Your task to perform on an android device: When is my next appointment? Image 0: 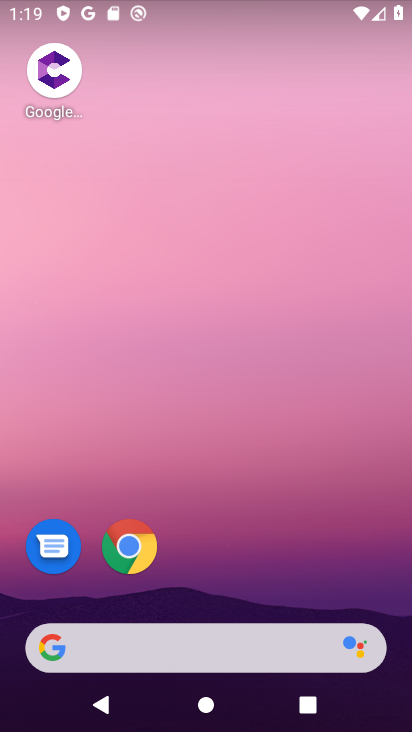
Step 0: drag from (305, 645) to (333, 13)
Your task to perform on an android device: When is my next appointment? Image 1: 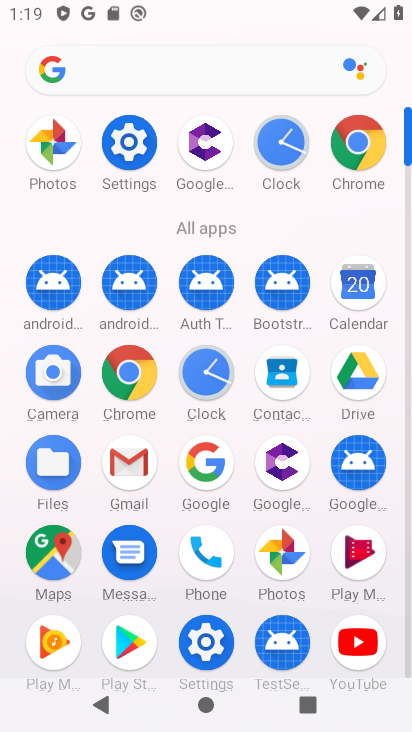
Step 1: click (373, 288)
Your task to perform on an android device: When is my next appointment? Image 2: 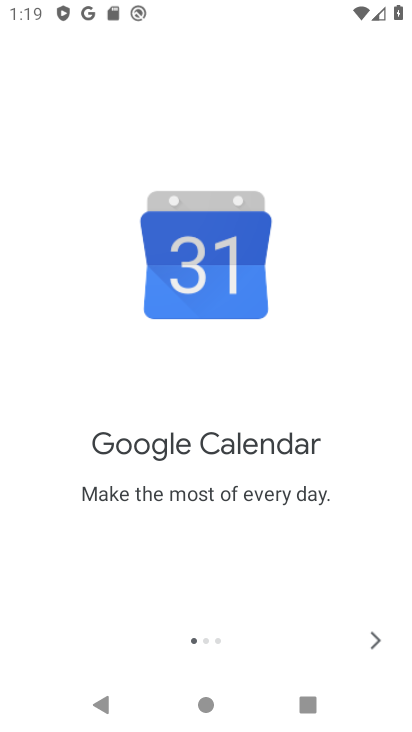
Step 2: click (367, 636)
Your task to perform on an android device: When is my next appointment? Image 3: 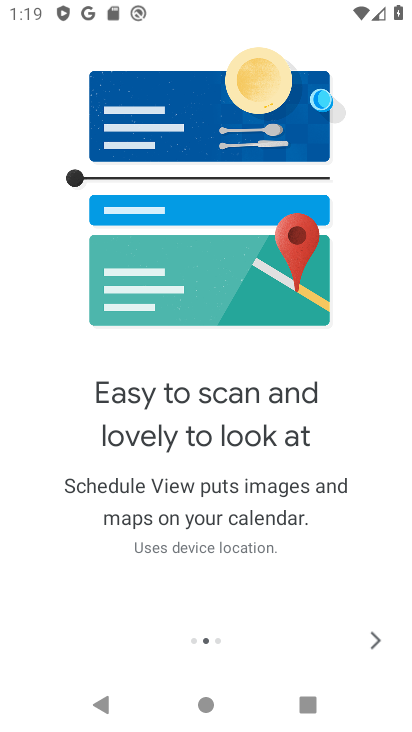
Step 3: click (367, 636)
Your task to perform on an android device: When is my next appointment? Image 4: 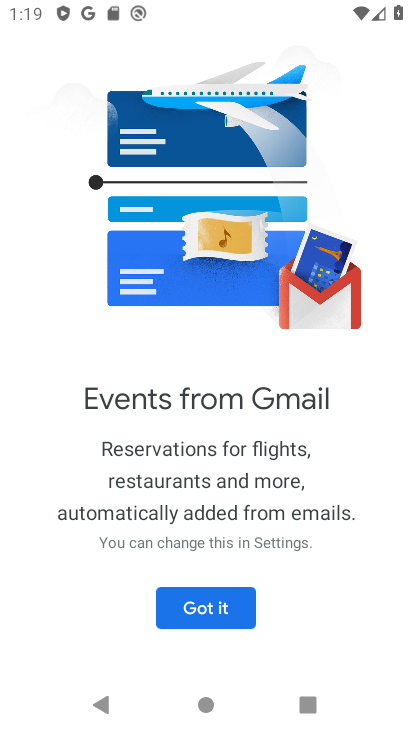
Step 4: click (193, 591)
Your task to perform on an android device: When is my next appointment? Image 5: 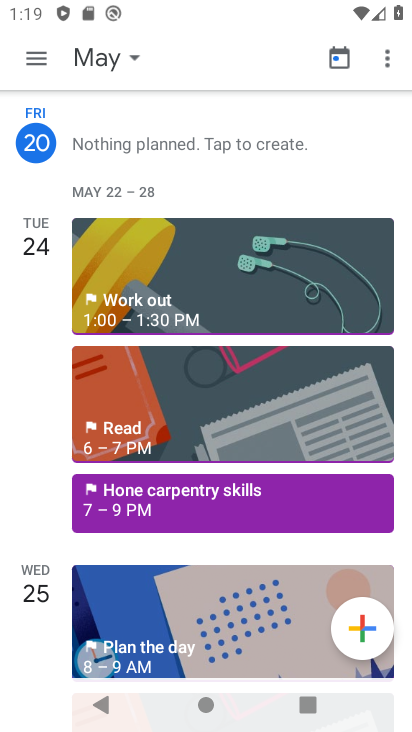
Step 5: click (130, 64)
Your task to perform on an android device: When is my next appointment? Image 6: 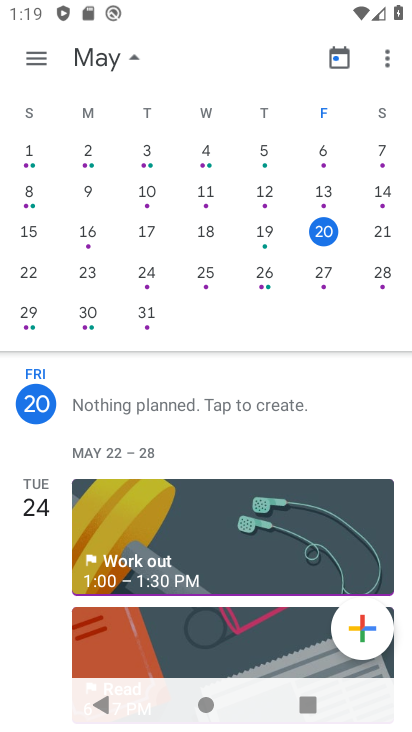
Step 6: click (325, 223)
Your task to perform on an android device: When is my next appointment? Image 7: 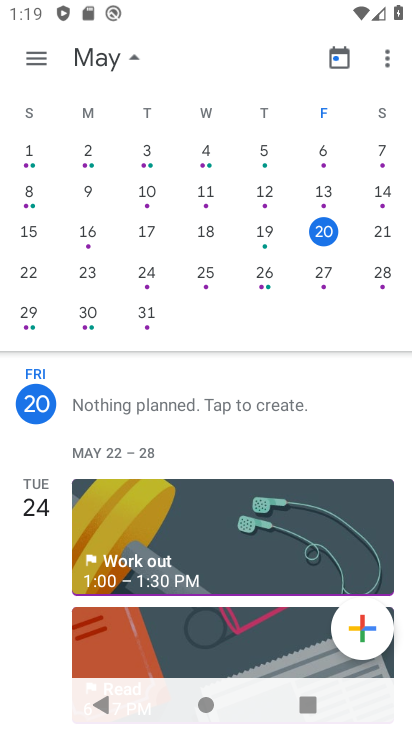
Step 7: task complete